Your task to perform on an android device: turn on wifi Image 0: 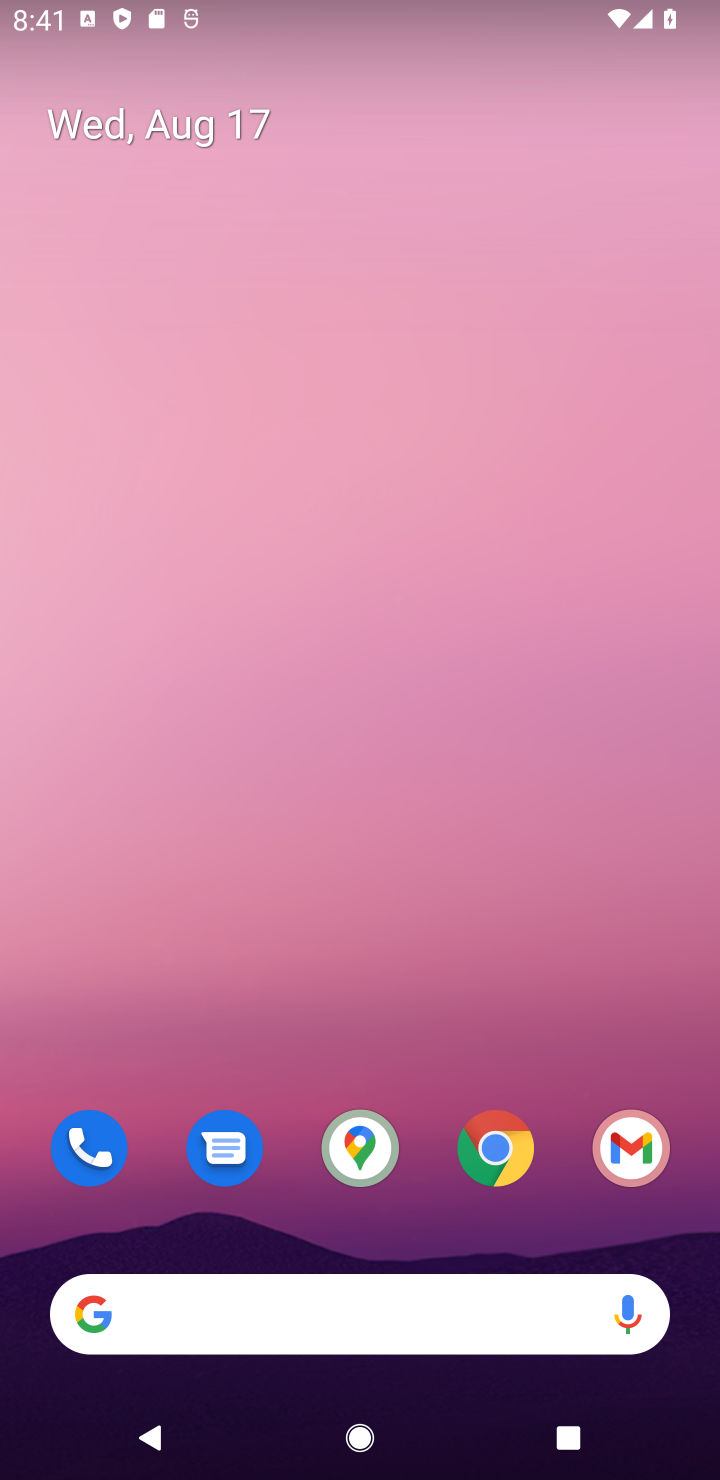
Step 0: click (499, 1156)
Your task to perform on an android device: turn on wifi Image 1: 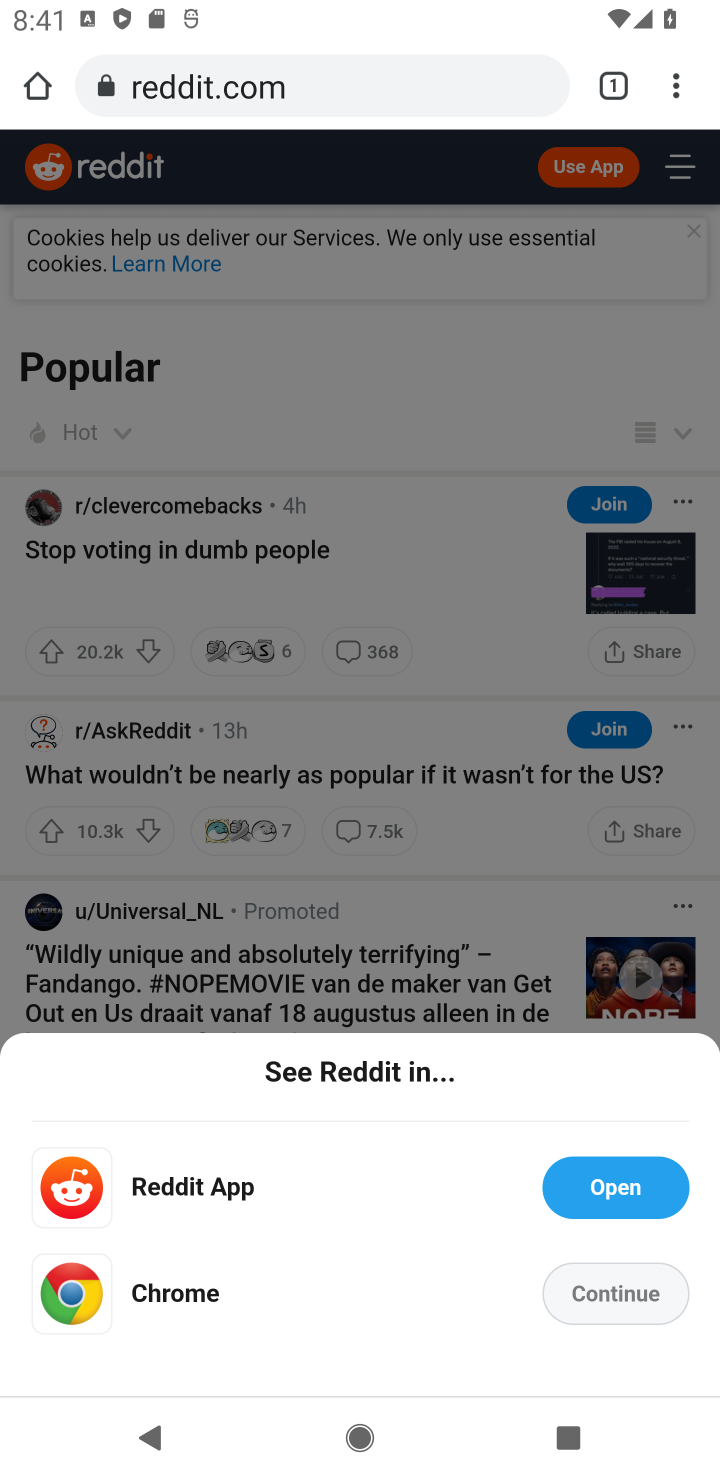
Step 1: press home button
Your task to perform on an android device: turn on wifi Image 2: 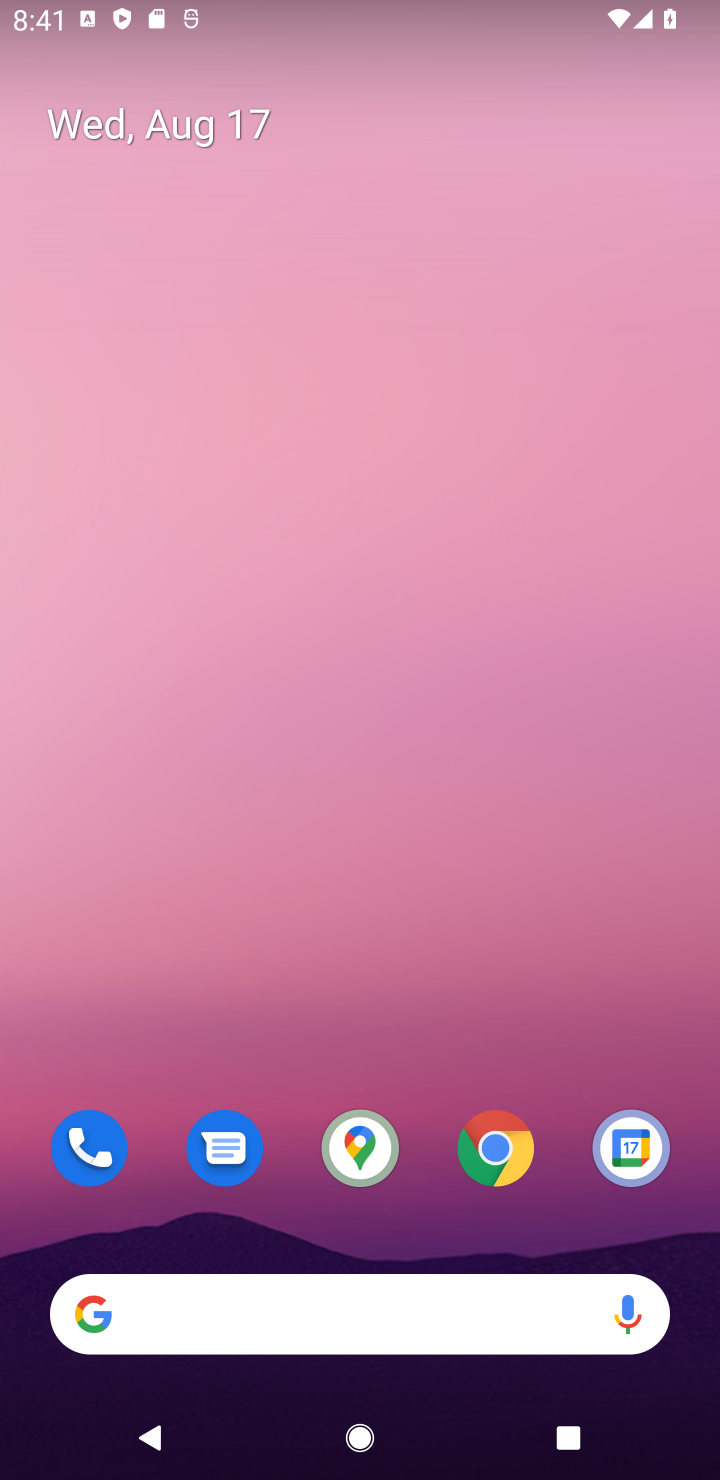
Step 2: drag from (559, 1220) to (534, 290)
Your task to perform on an android device: turn on wifi Image 3: 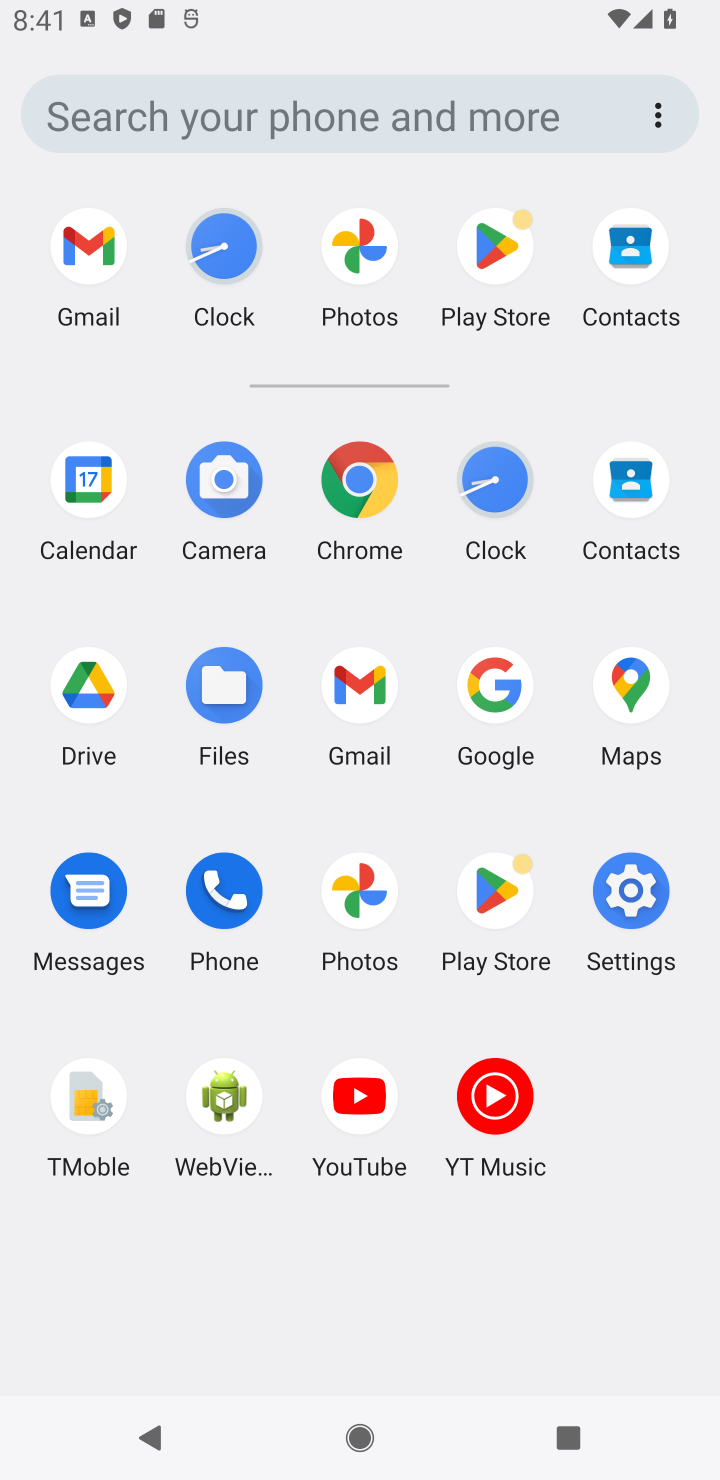
Step 3: click (635, 890)
Your task to perform on an android device: turn on wifi Image 4: 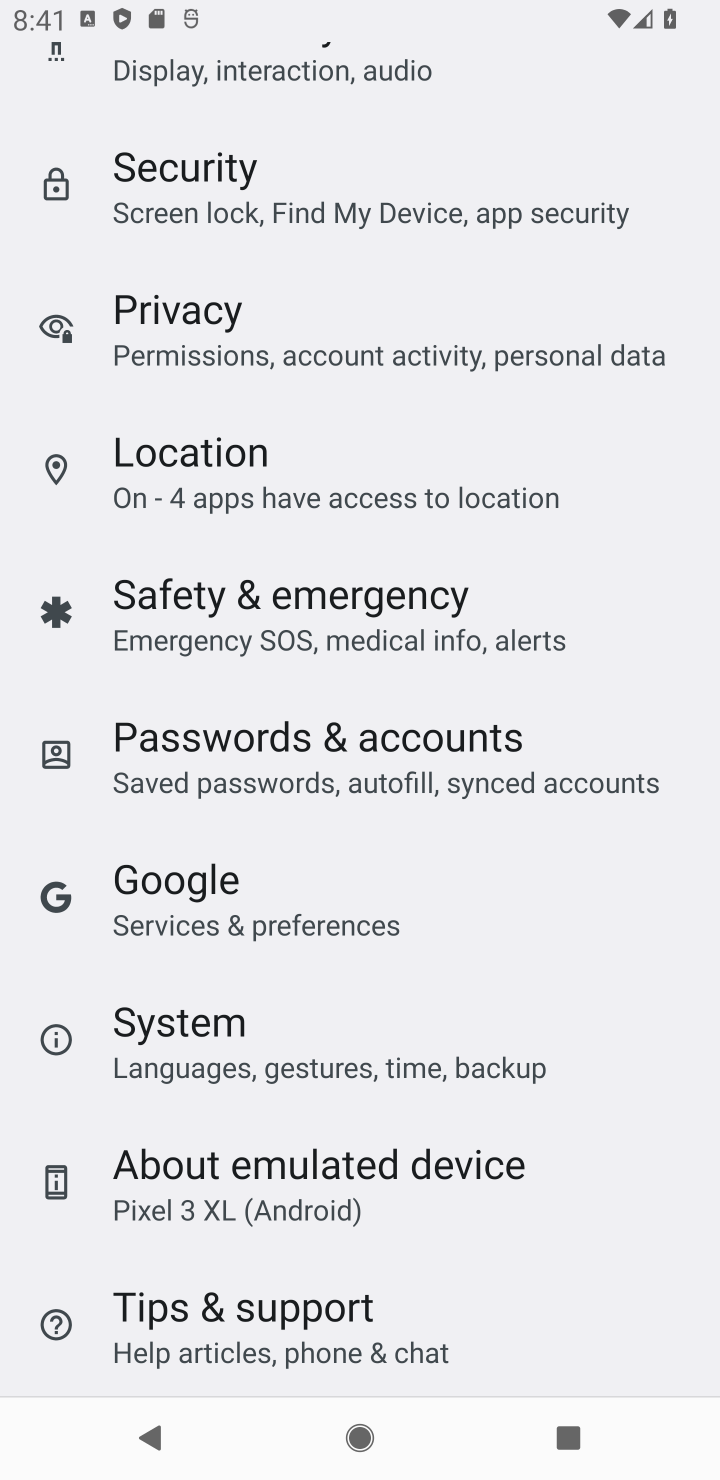
Step 4: drag from (620, 260) to (657, 1147)
Your task to perform on an android device: turn on wifi Image 5: 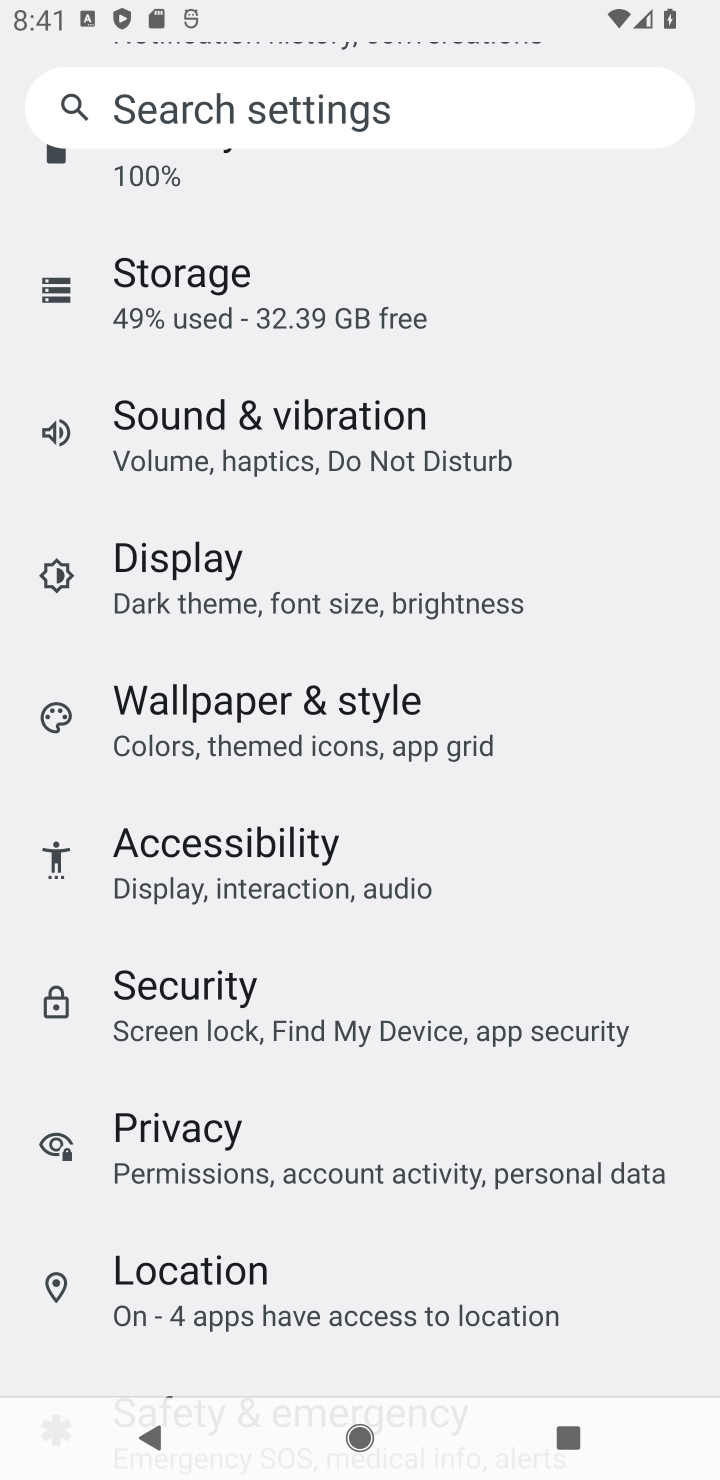
Step 5: drag from (610, 292) to (686, 1042)
Your task to perform on an android device: turn on wifi Image 6: 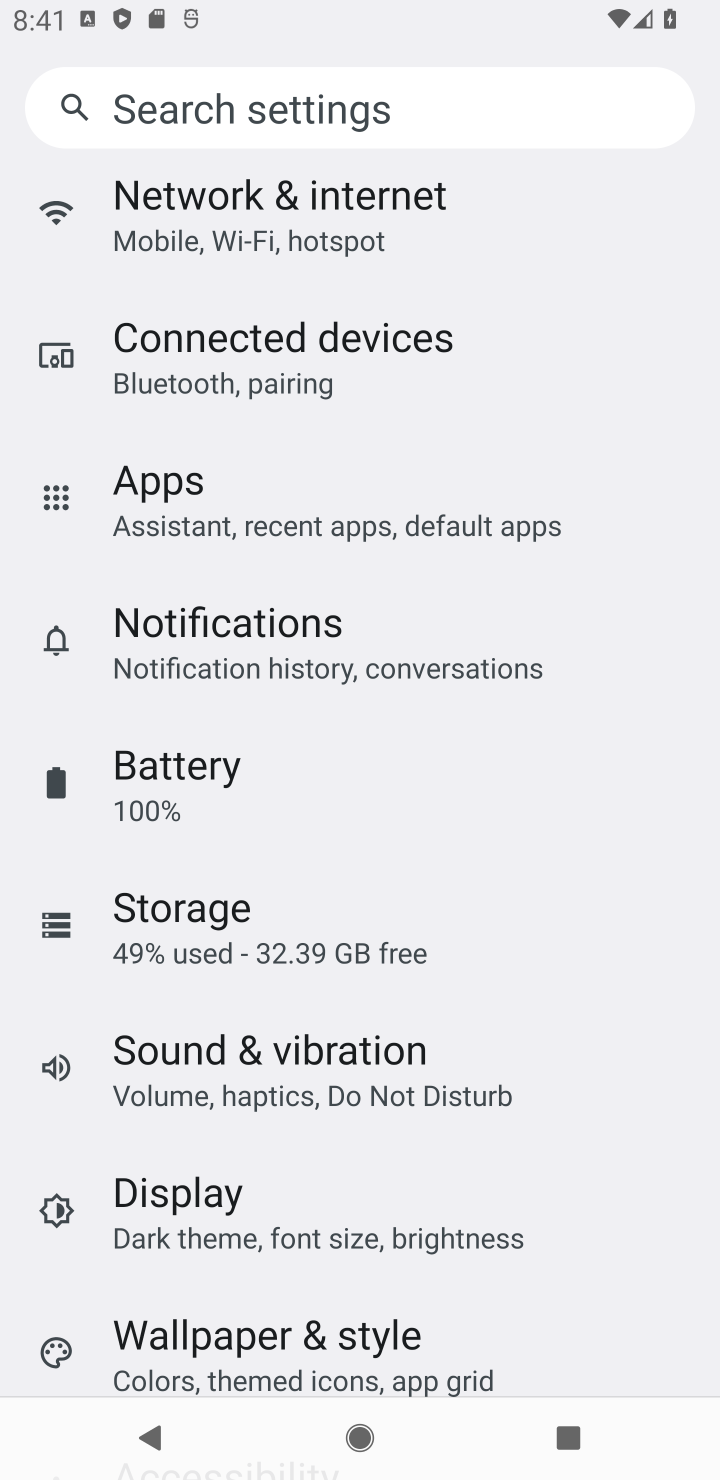
Step 6: drag from (644, 398) to (649, 1043)
Your task to perform on an android device: turn on wifi Image 7: 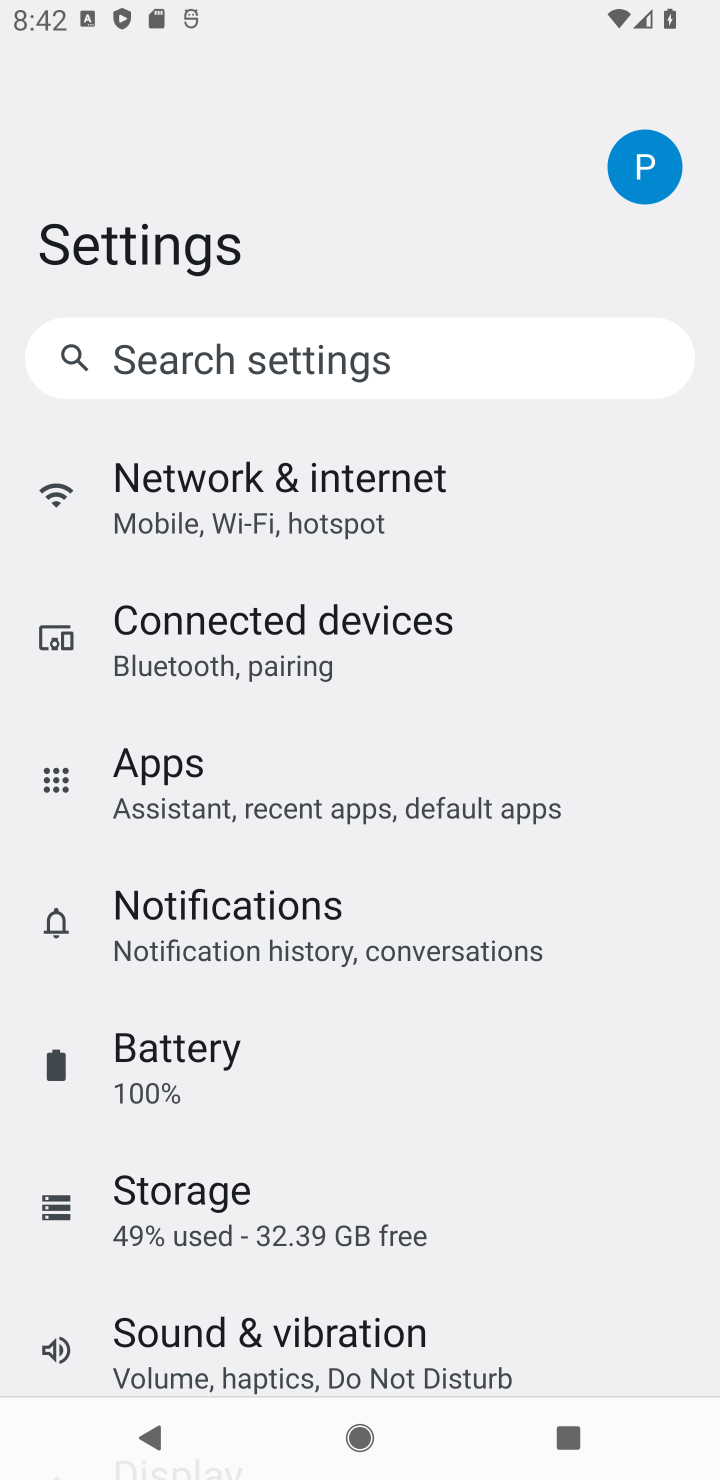
Step 7: click (210, 497)
Your task to perform on an android device: turn on wifi Image 8: 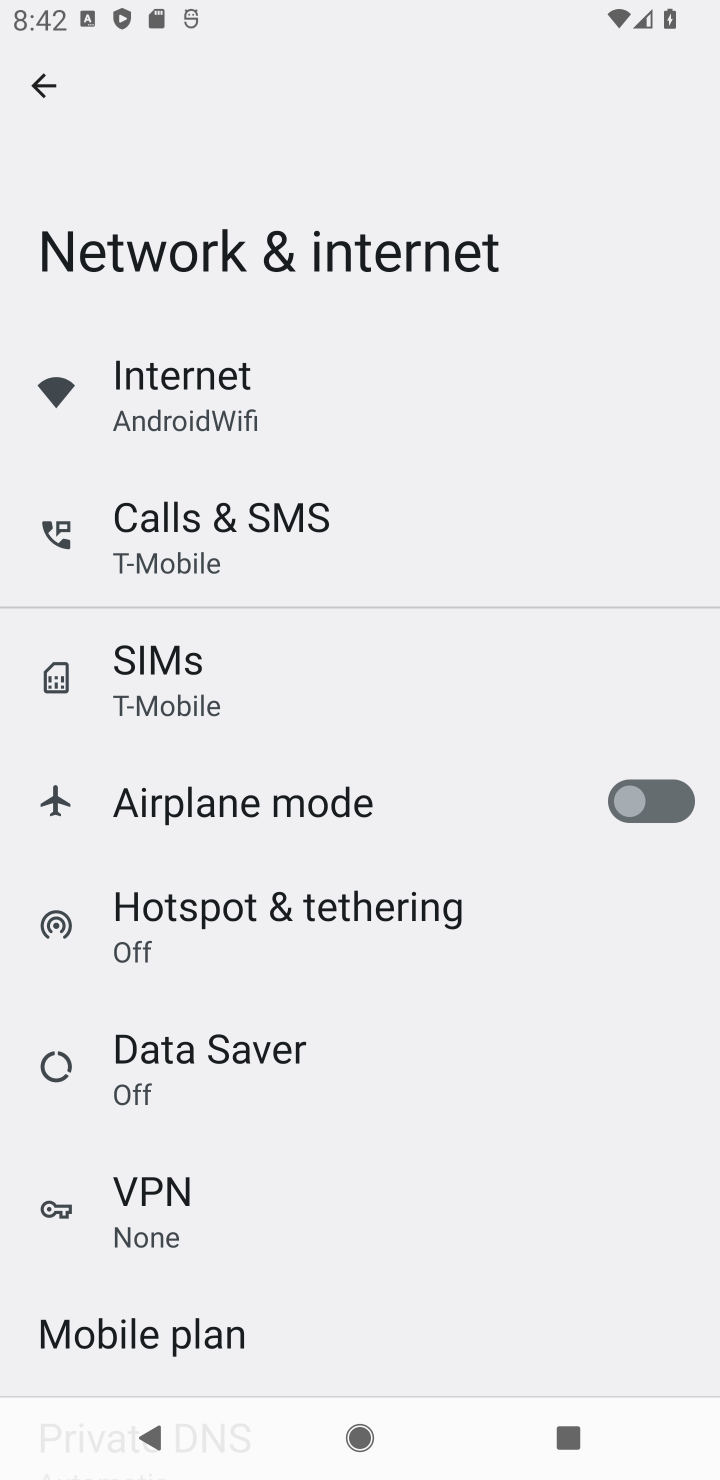
Step 8: click (197, 392)
Your task to perform on an android device: turn on wifi Image 9: 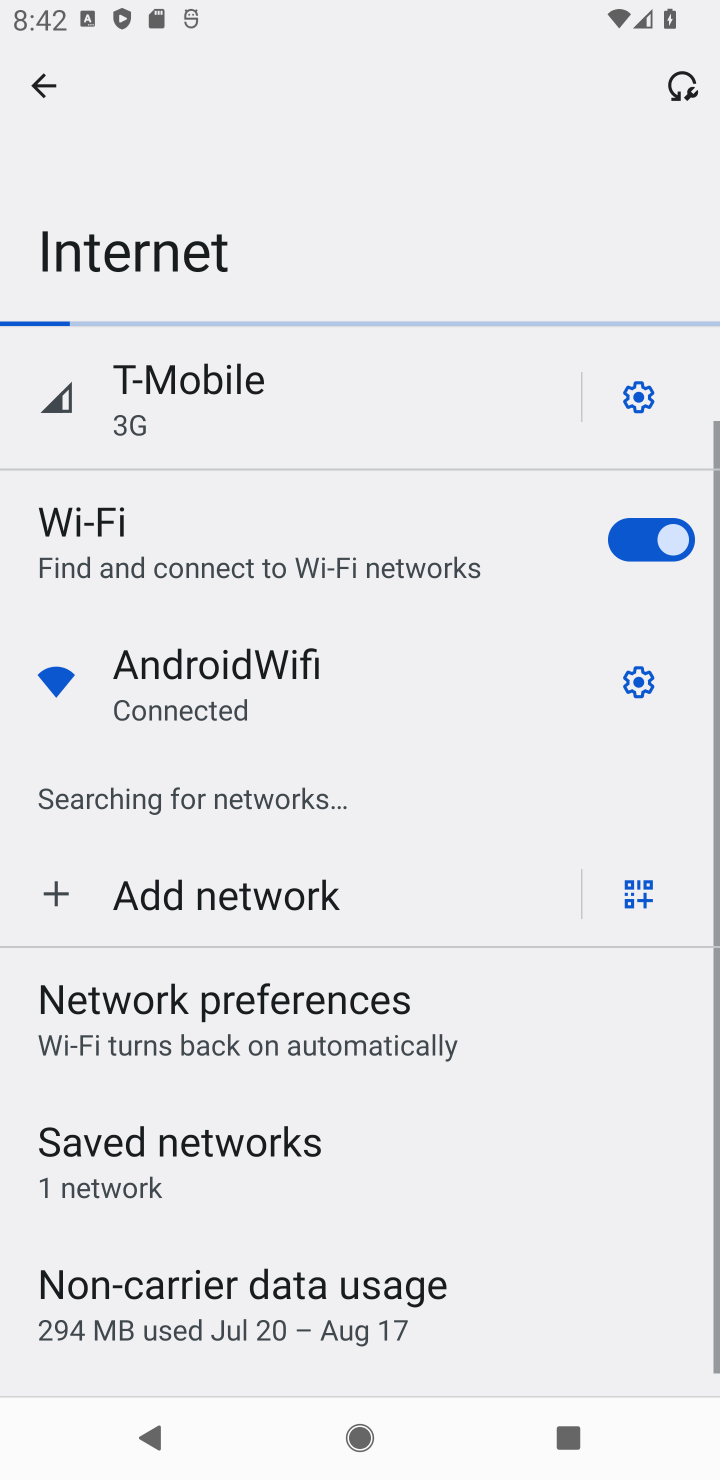
Step 9: task complete